Your task to perform on an android device: turn off sleep mode Image 0: 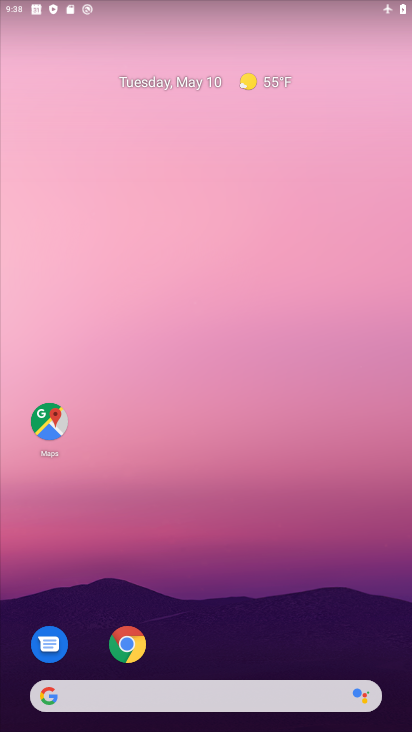
Step 0: drag from (232, 608) to (228, 166)
Your task to perform on an android device: turn off sleep mode Image 1: 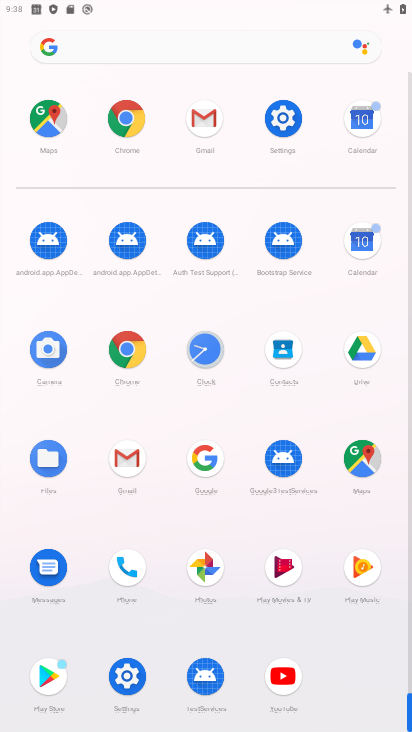
Step 1: click (297, 115)
Your task to perform on an android device: turn off sleep mode Image 2: 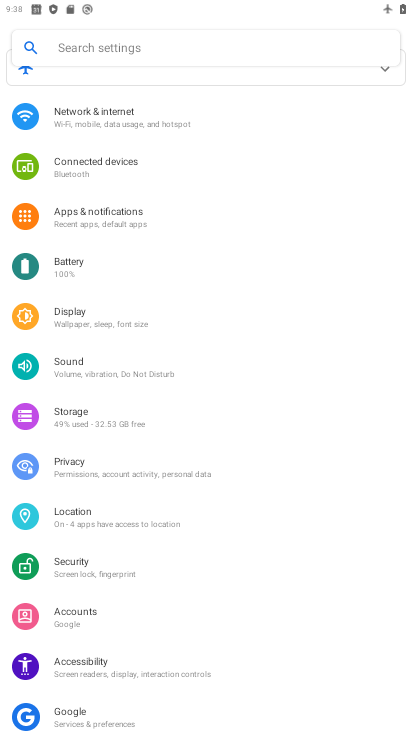
Step 2: click (175, 327)
Your task to perform on an android device: turn off sleep mode Image 3: 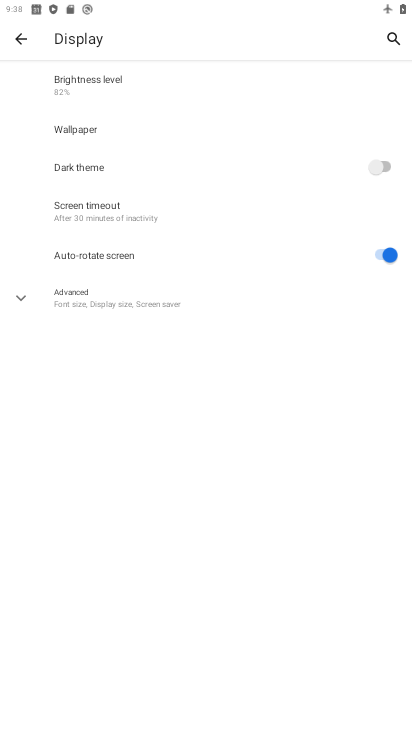
Step 3: task complete